Your task to perform on an android device: turn off wifi Image 0: 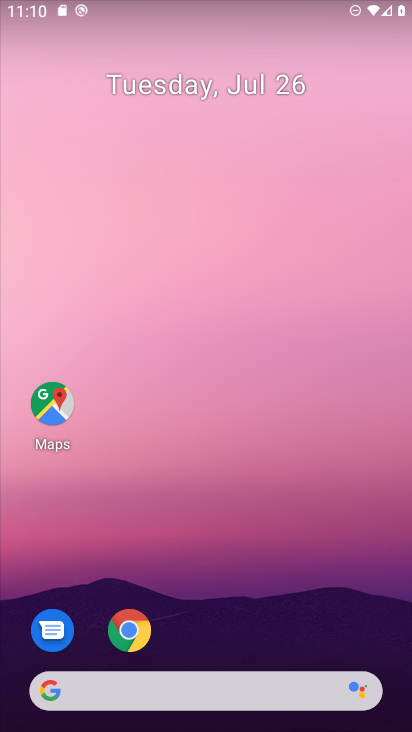
Step 0: drag from (380, 643) to (314, 122)
Your task to perform on an android device: turn off wifi Image 1: 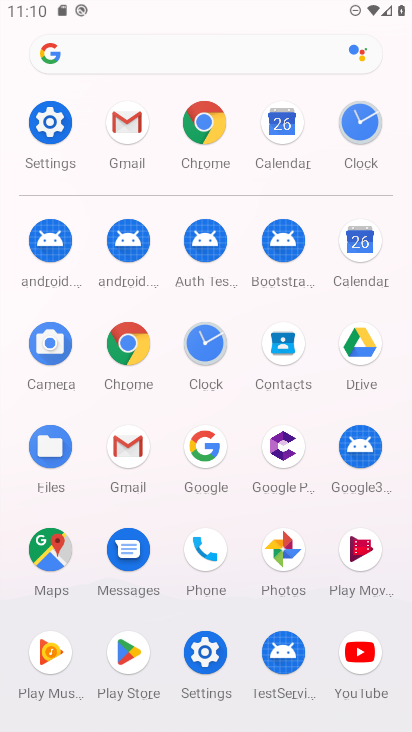
Step 1: click (203, 654)
Your task to perform on an android device: turn off wifi Image 2: 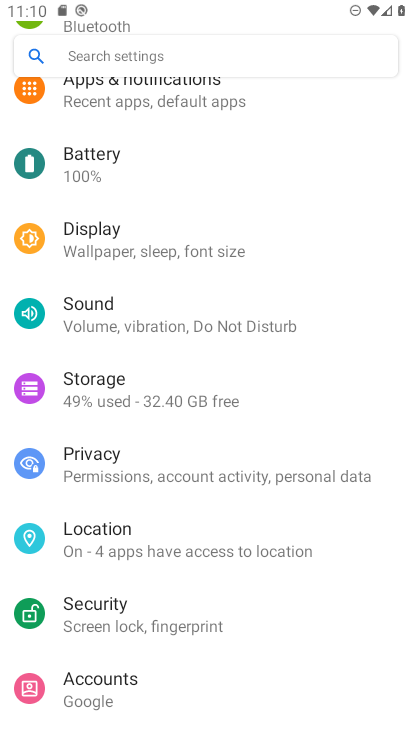
Step 2: drag from (342, 187) to (390, 461)
Your task to perform on an android device: turn off wifi Image 3: 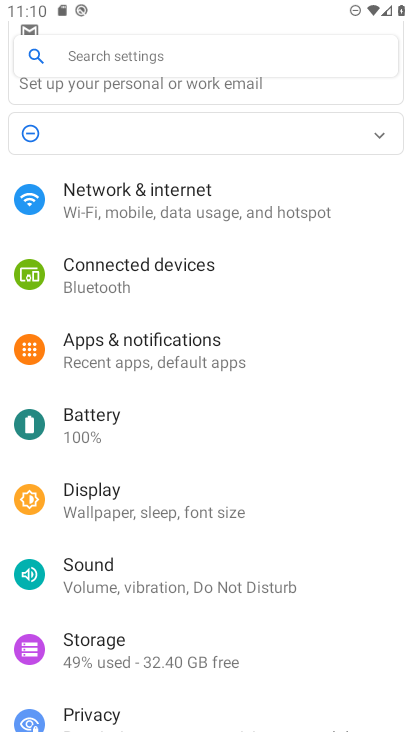
Step 3: click (103, 191)
Your task to perform on an android device: turn off wifi Image 4: 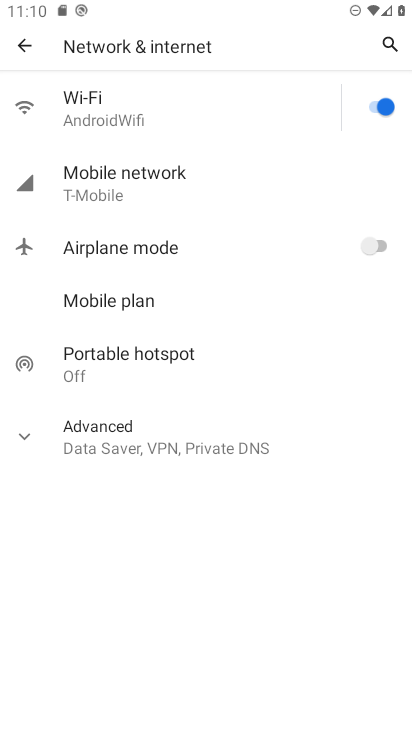
Step 4: click (371, 106)
Your task to perform on an android device: turn off wifi Image 5: 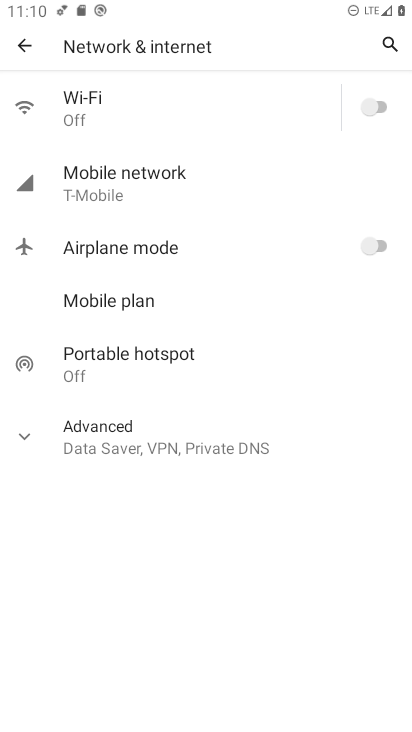
Step 5: task complete